Your task to perform on an android device: set the timer Image 0: 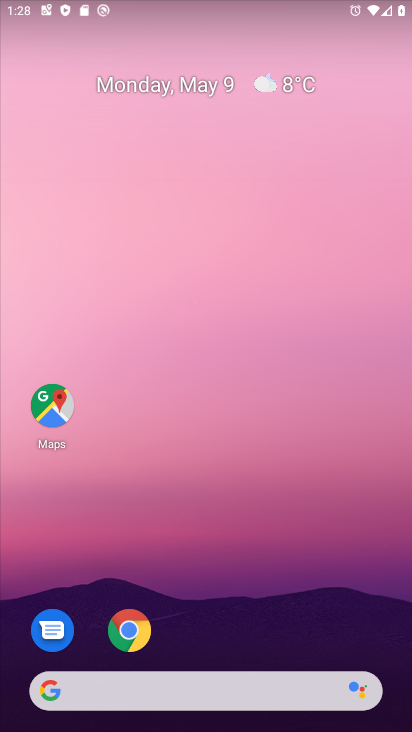
Step 0: drag from (326, 627) to (252, 17)
Your task to perform on an android device: set the timer Image 1: 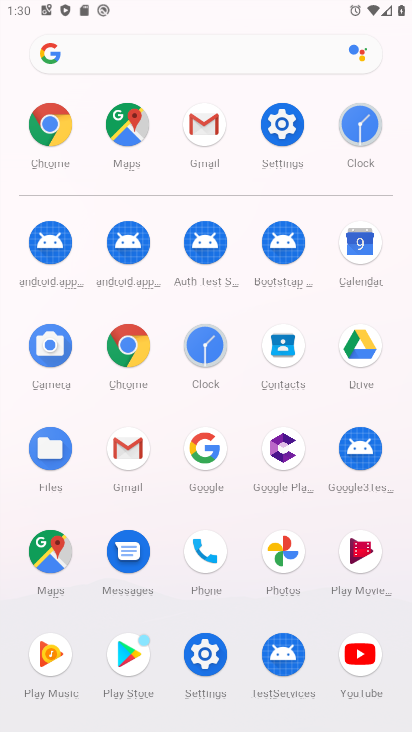
Step 1: click (197, 358)
Your task to perform on an android device: set the timer Image 2: 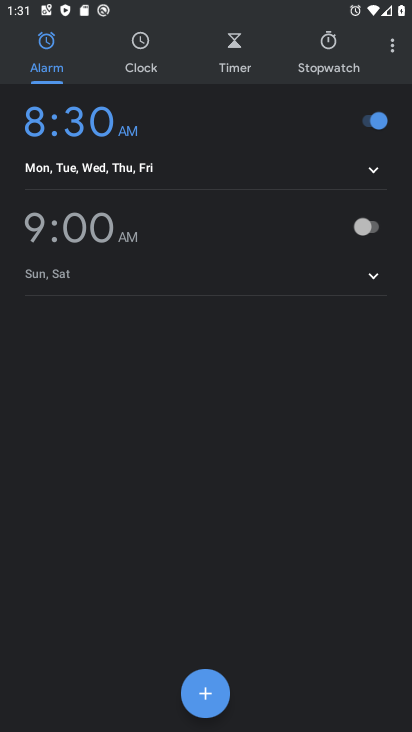
Step 2: click (389, 43)
Your task to perform on an android device: set the timer Image 3: 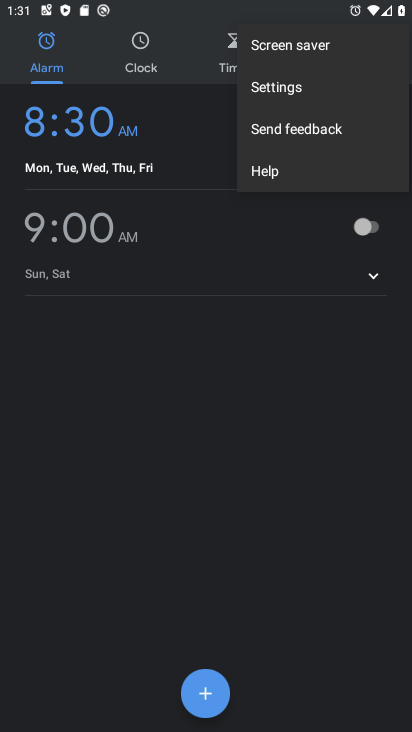
Step 3: click (274, 85)
Your task to perform on an android device: set the timer Image 4: 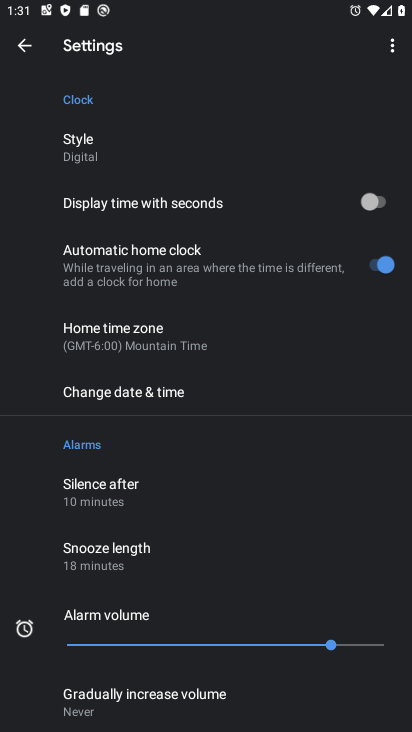
Step 4: click (184, 335)
Your task to perform on an android device: set the timer Image 5: 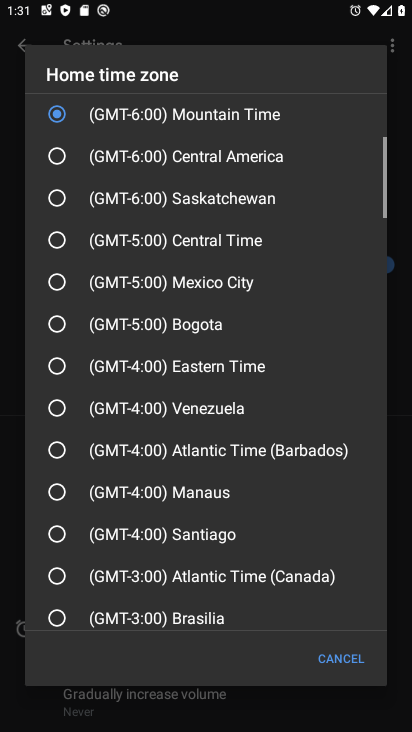
Step 5: click (129, 318)
Your task to perform on an android device: set the timer Image 6: 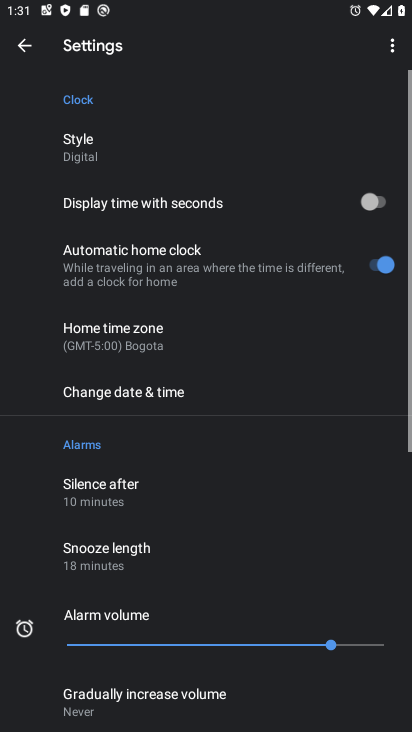
Step 6: task complete